Your task to perform on an android device: Open Chrome and go to the settings page Image 0: 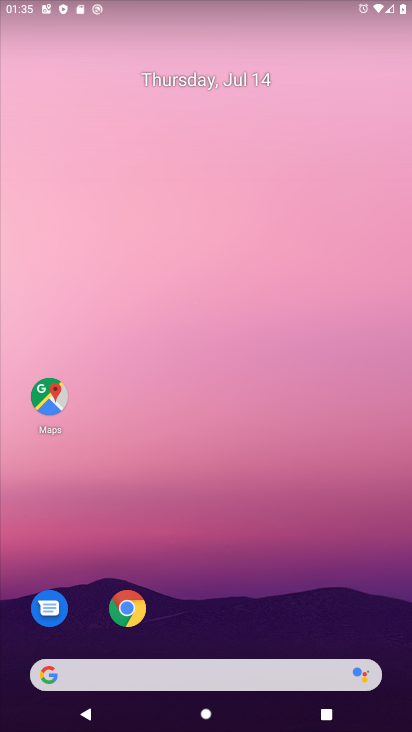
Step 0: click (129, 607)
Your task to perform on an android device: Open Chrome and go to the settings page Image 1: 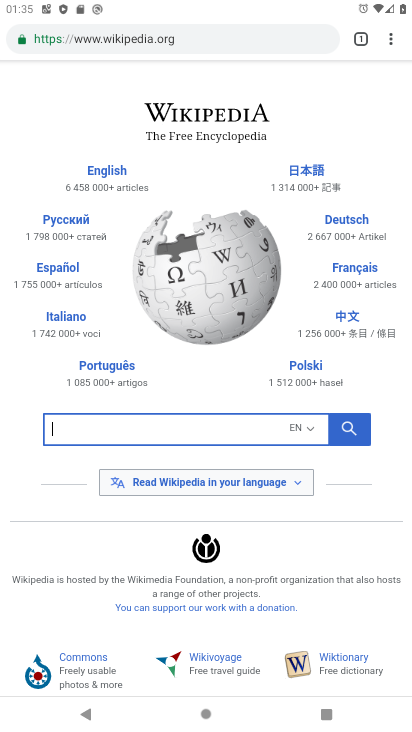
Step 1: task complete